Your task to perform on an android device: change your default location settings in chrome Image 0: 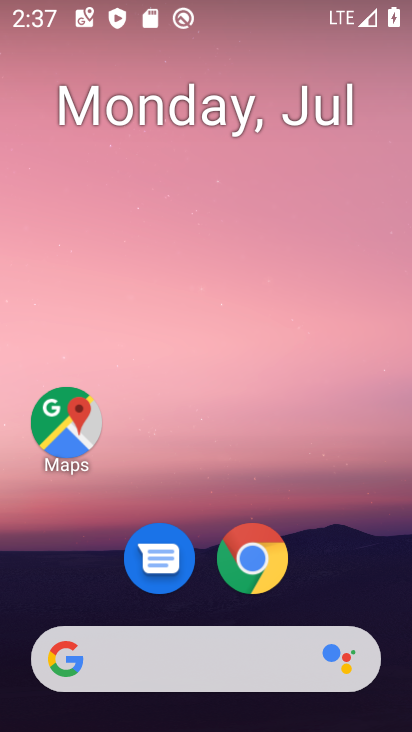
Step 0: press home button
Your task to perform on an android device: change your default location settings in chrome Image 1: 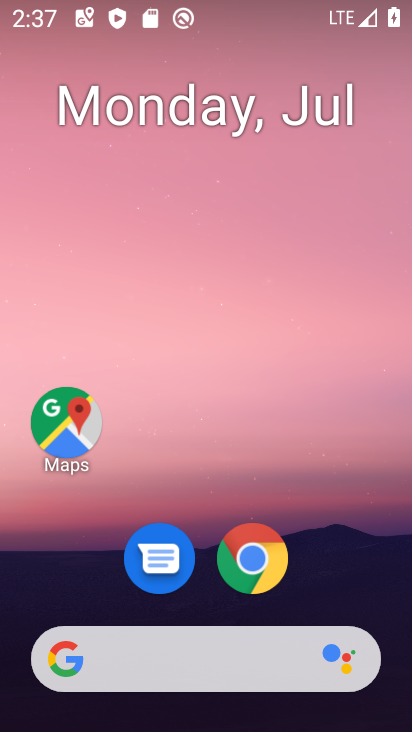
Step 1: drag from (362, 582) to (361, 65)
Your task to perform on an android device: change your default location settings in chrome Image 2: 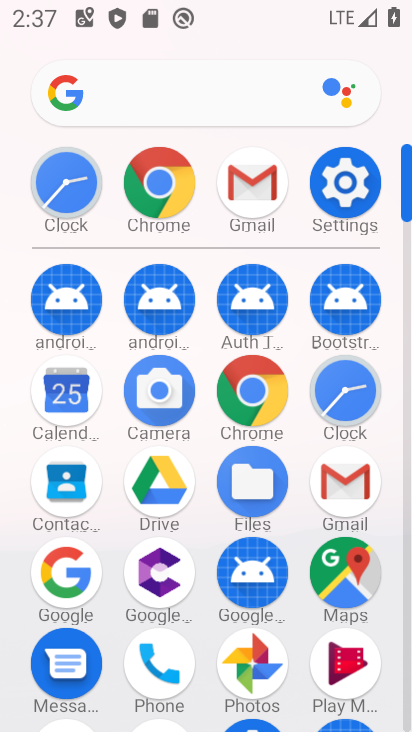
Step 2: click (253, 391)
Your task to perform on an android device: change your default location settings in chrome Image 3: 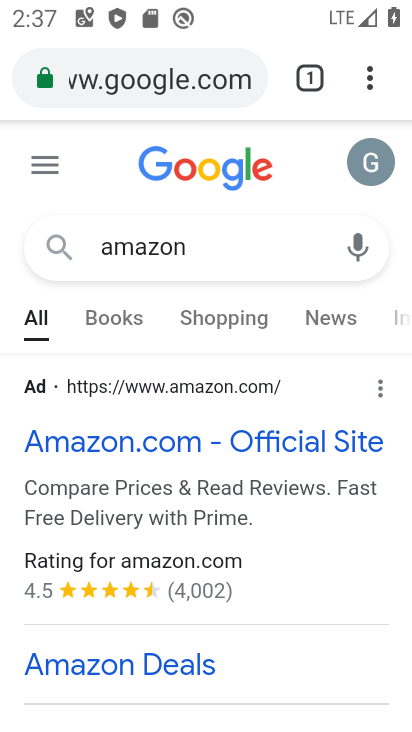
Step 3: click (370, 85)
Your task to perform on an android device: change your default location settings in chrome Image 4: 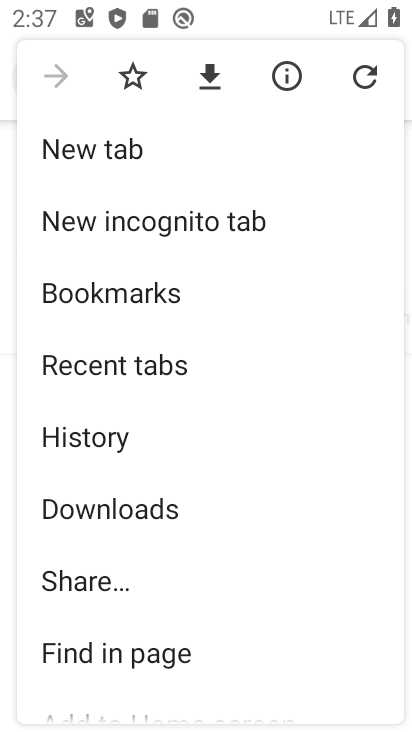
Step 4: drag from (332, 450) to (331, 331)
Your task to perform on an android device: change your default location settings in chrome Image 5: 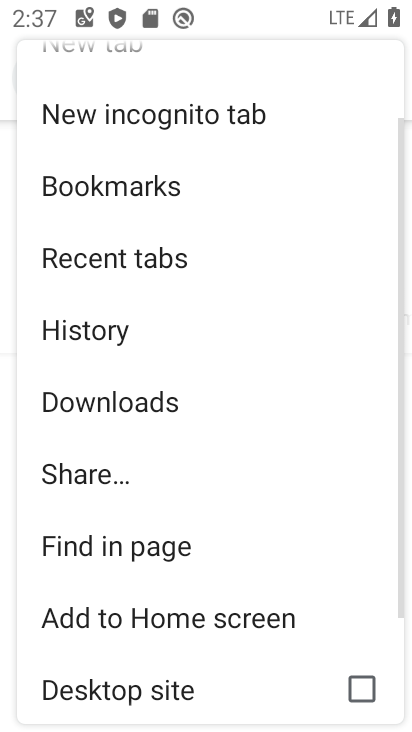
Step 5: drag from (300, 519) to (300, 381)
Your task to perform on an android device: change your default location settings in chrome Image 6: 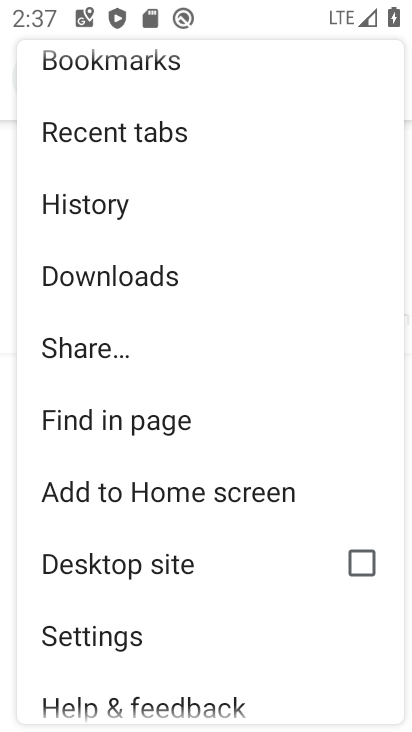
Step 6: drag from (270, 597) to (259, 443)
Your task to perform on an android device: change your default location settings in chrome Image 7: 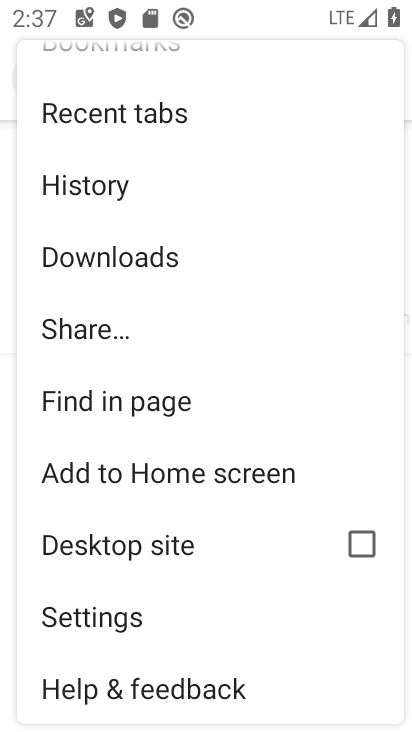
Step 7: click (184, 609)
Your task to perform on an android device: change your default location settings in chrome Image 8: 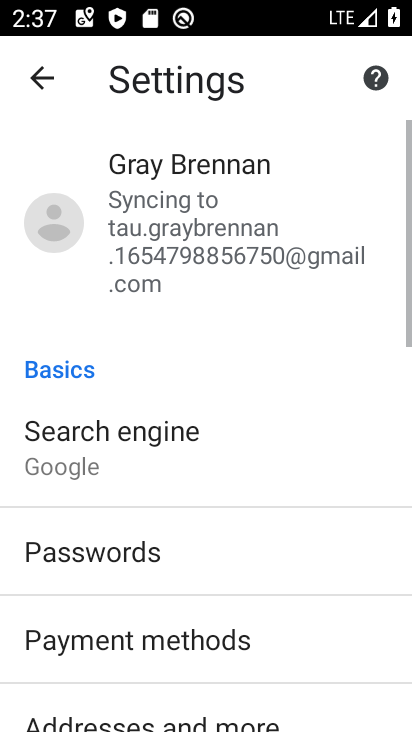
Step 8: drag from (292, 566) to (294, 440)
Your task to perform on an android device: change your default location settings in chrome Image 9: 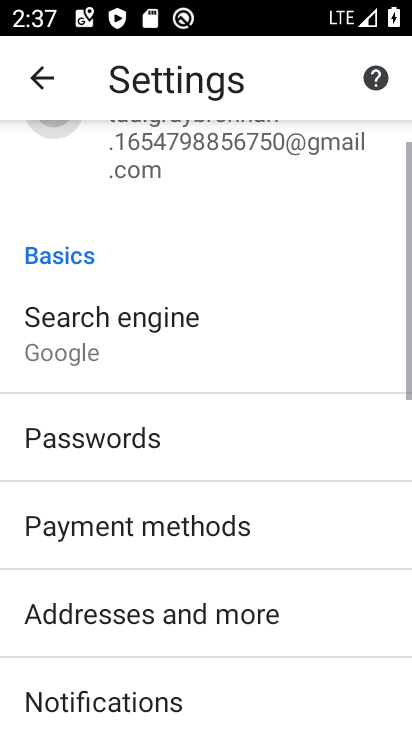
Step 9: drag from (312, 589) to (302, 464)
Your task to perform on an android device: change your default location settings in chrome Image 10: 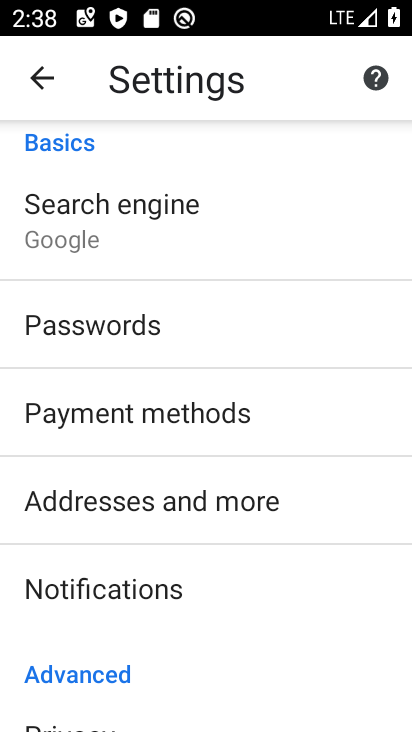
Step 10: drag from (300, 583) to (293, 473)
Your task to perform on an android device: change your default location settings in chrome Image 11: 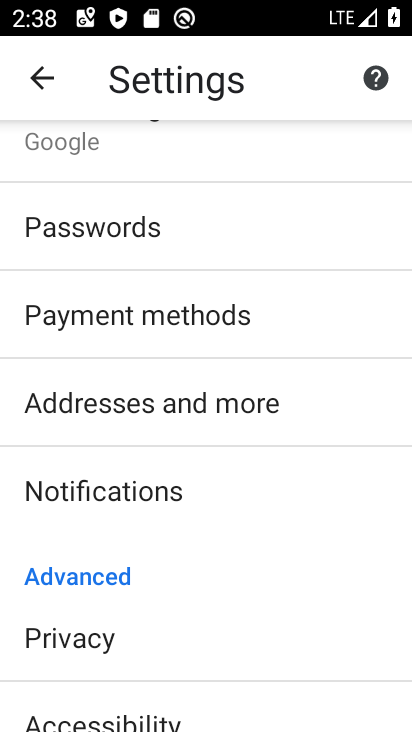
Step 11: drag from (291, 586) to (277, 443)
Your task to perform on an android device: change your default location settings in chrome Image 12: 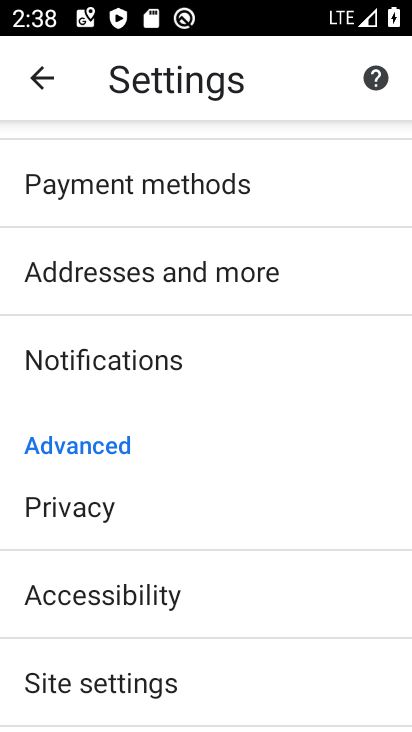
Step 12: drag from (279, 616) to (282, 458)
Your task to perform on an android device: change your default location settings in chrome Image 13: 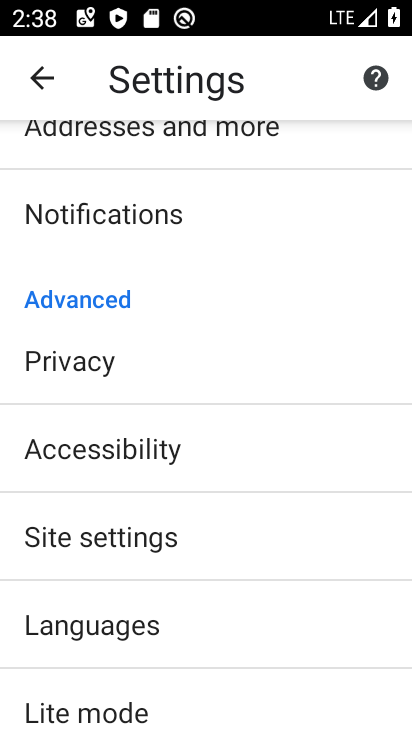
Step 13: click (261, 554)
Your task to perform on an android device: change your default location settings in chrome Image 14: 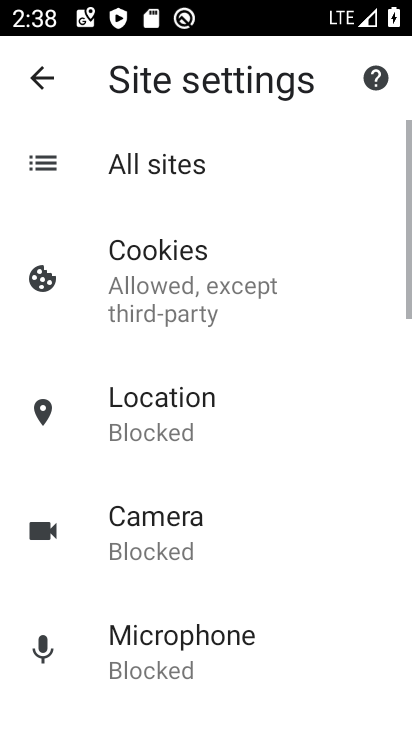
Step 14: drag from (299, 568) to (303, 468)
Your task to perform on an android device: change your default location settings in chrome Image 15: 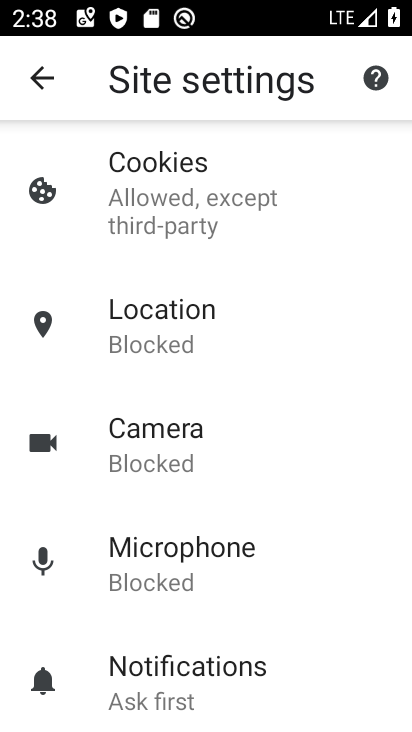
Step 15: click (307, 358)
Your task to perform on an android device: change your default location settings in chrome Image 16: 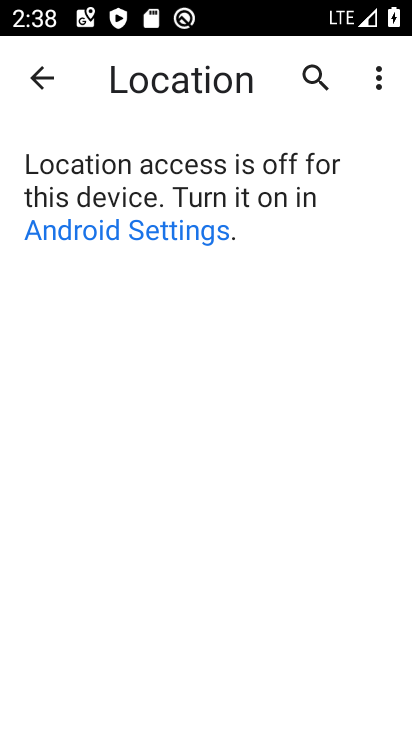
Step 16: click (208, 235)
Your task to perform on an android device: change your default location settings in chrome Image 17: 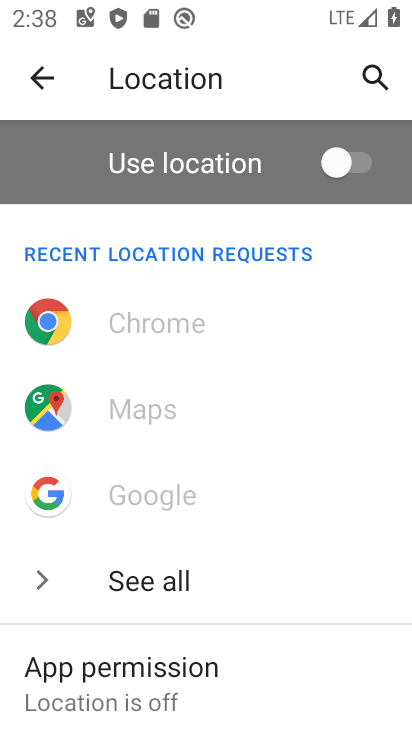
Step 17: click (331, 167)
Your task to perform on an android device: change your default location settings in chrome Image 18: 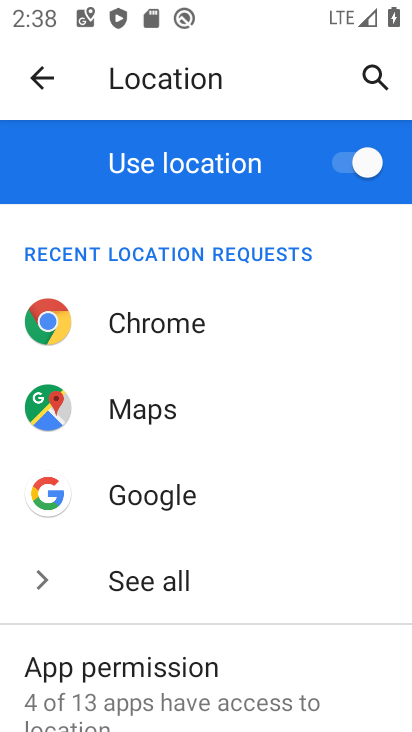
Step 18: task complete